Your task to perform on an android device: open a new tab in the chrome app Image 0: 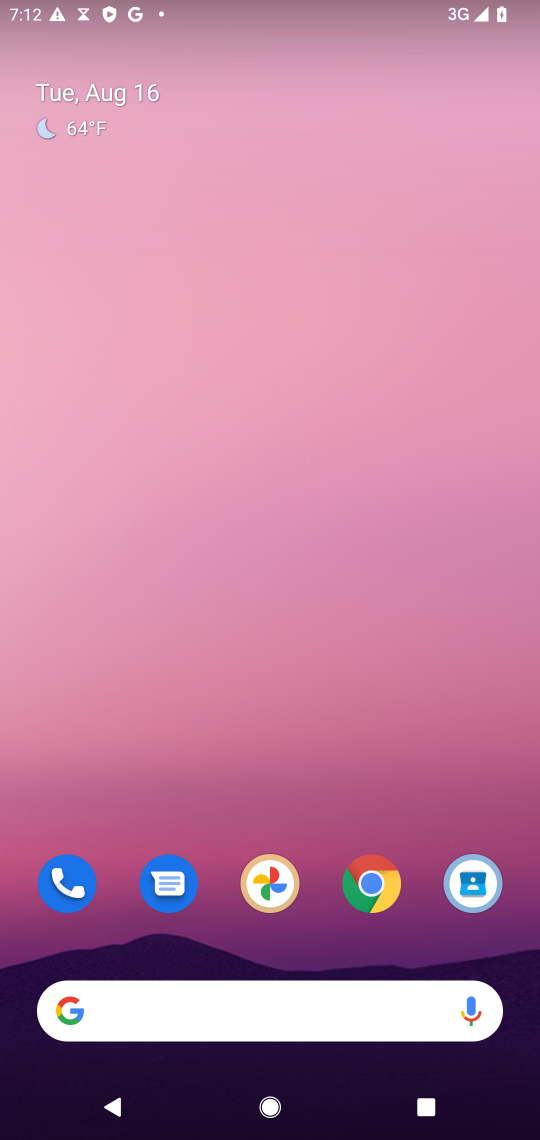
Step 0: click (371, 887)
Your task to perform on an android device: open a new tab in the chrome app Image 1: 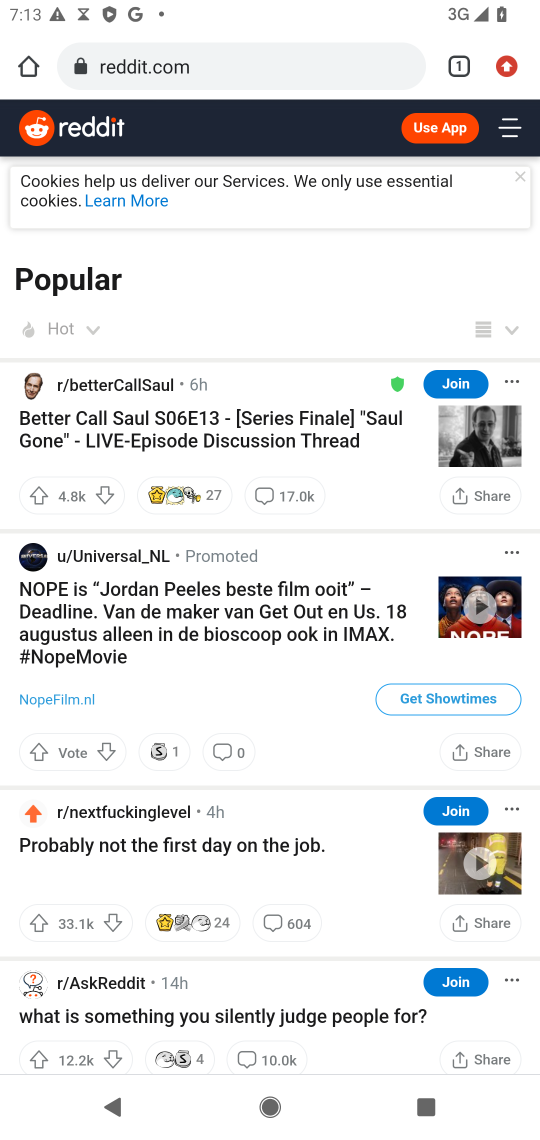
Step 1: click (504, 69)
Your task to perform on an android device: open a new tab in the chrome app Image 2: 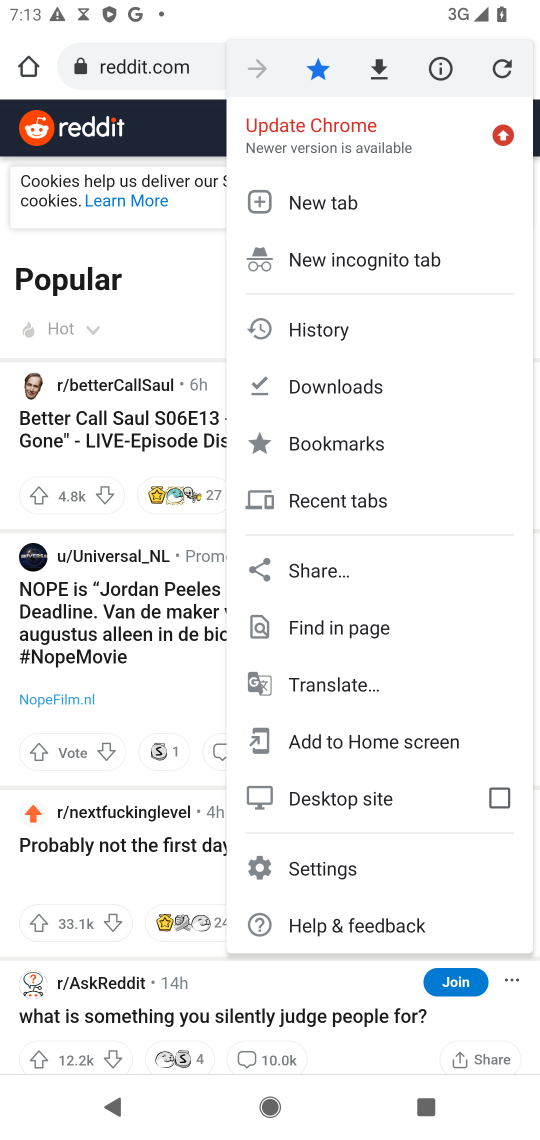
Step 2: click (344, 205)
Your task to perform on an android device: open a new tab in the chrome app Image 3: 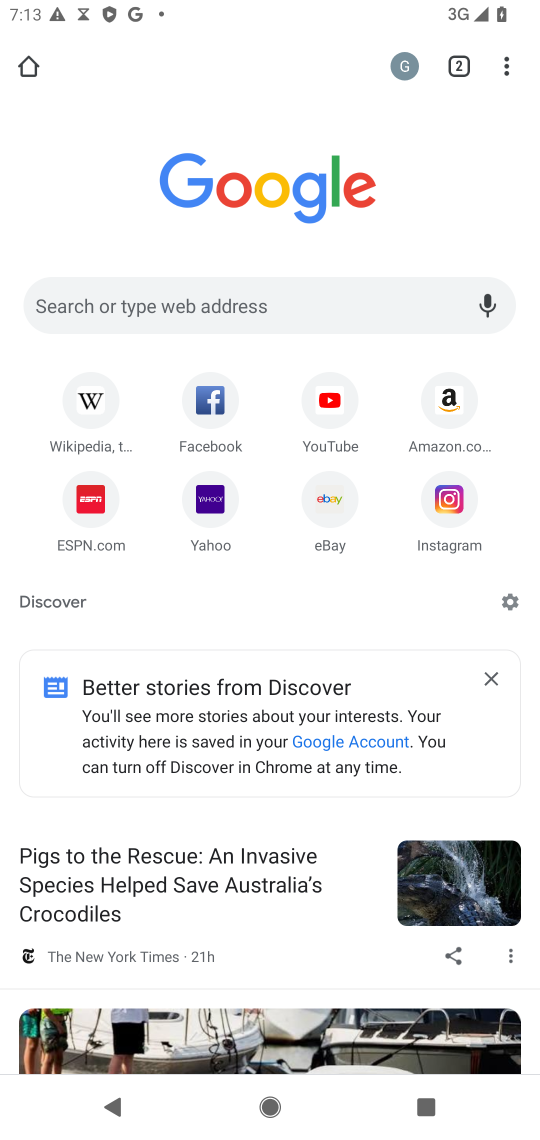
Step 3: task complete